Your task to perform on an android device: Open Wikipedia Image 0: 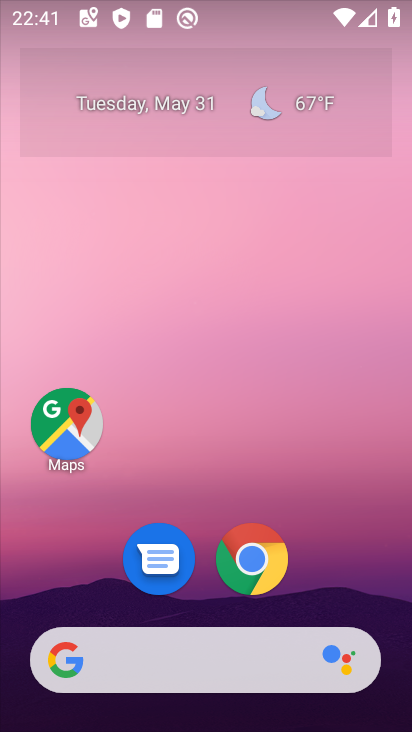
Step 0: click (253, 559)
Your task to perform on an android device: Open Wikipedia Image 1: 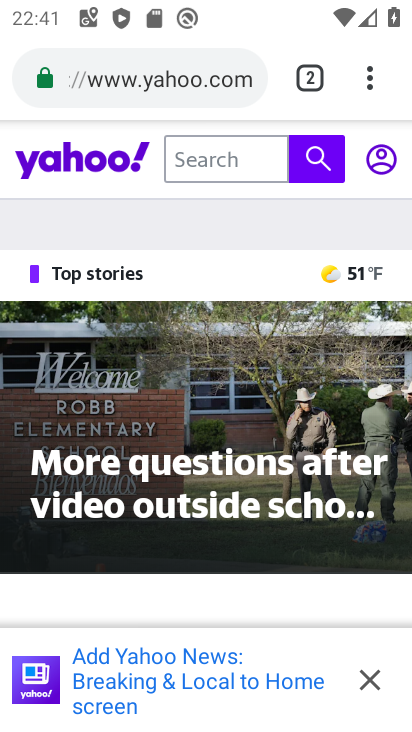
Step 1: press back button
Your task to perform on an android device: Open Wikipedia Image 2: 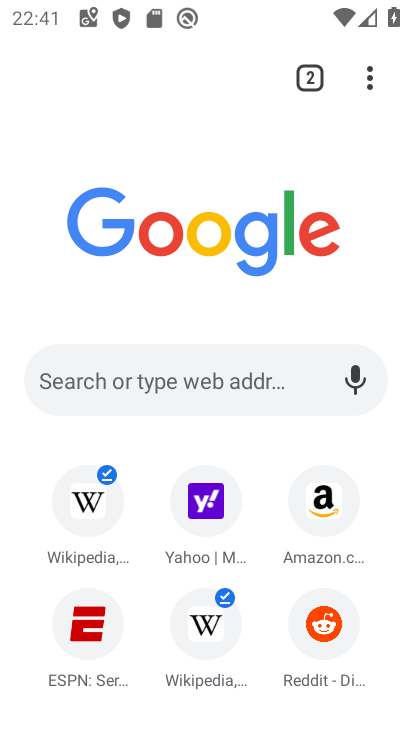
Step 2: click (83, 492)
Your task to perform on an android device: Open Wikipedia Image 3: 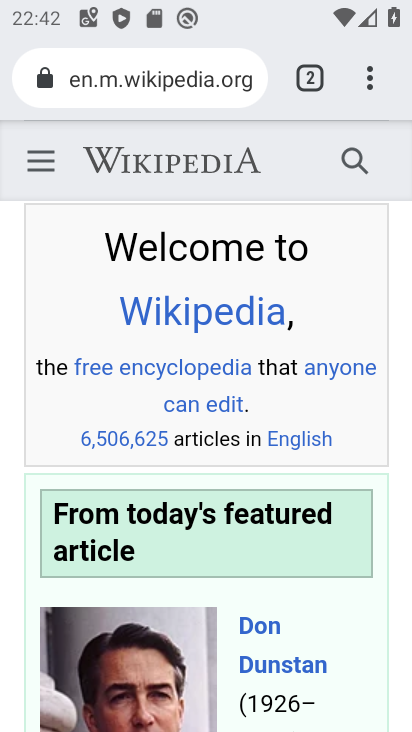
Step 3: task complete